Your task to perform on an android device: Open calendar and show me the fourth week of next month Image 0: 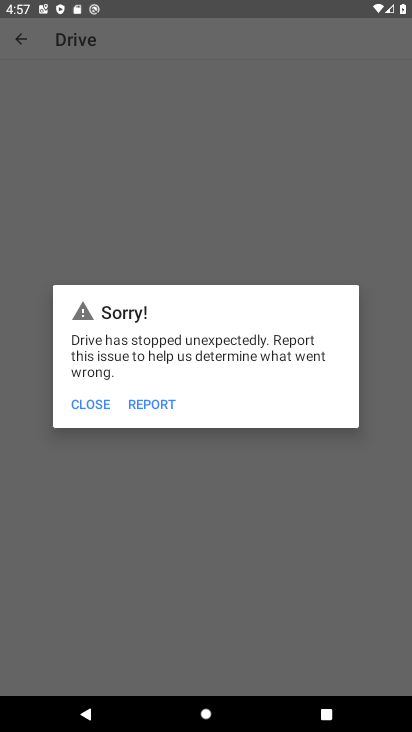
Step 0: press home button
Your task to perform on an android device: Open calendar and show me the fourth week of next month Image 1: 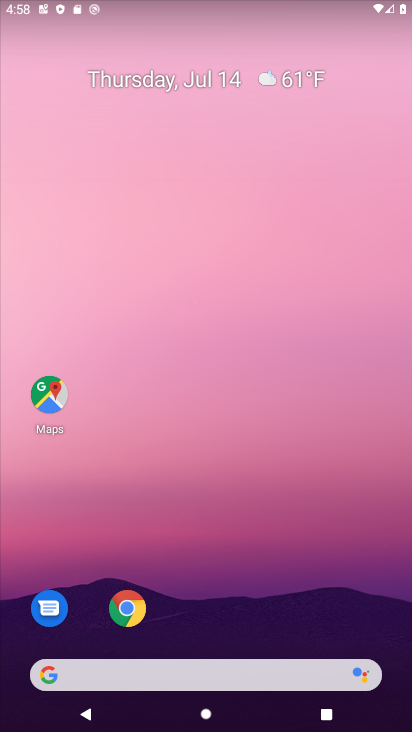
Step 1: drag from (233, 538) to (156, 22)
Your task to perform on an android device: Open calendar and show me the fourth week of next month Image 2: 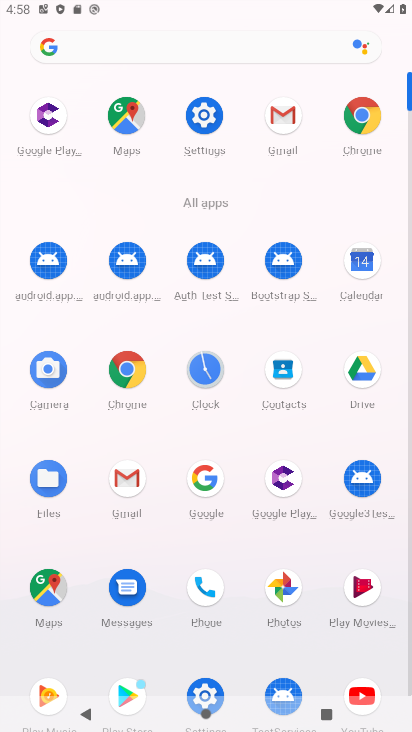
Step 2: click (370, 266)
Your task to perform on an android device: Open calendar and show me the fourth week of next month Image 3: 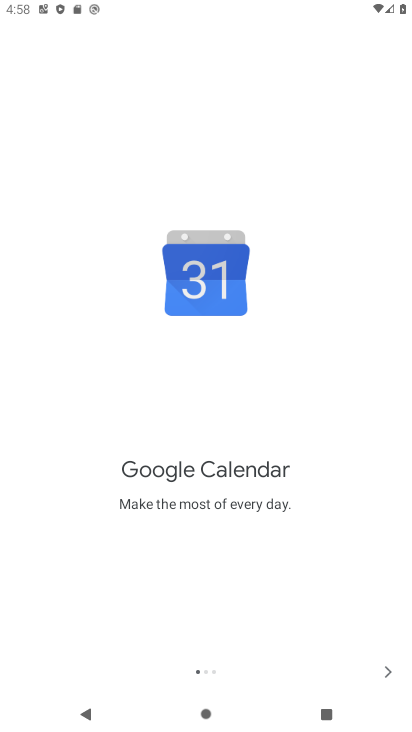
Step 3: click (393, 674)
Your task to perform on an android device: Open calendar and show me the fourth week of next month Image 4: 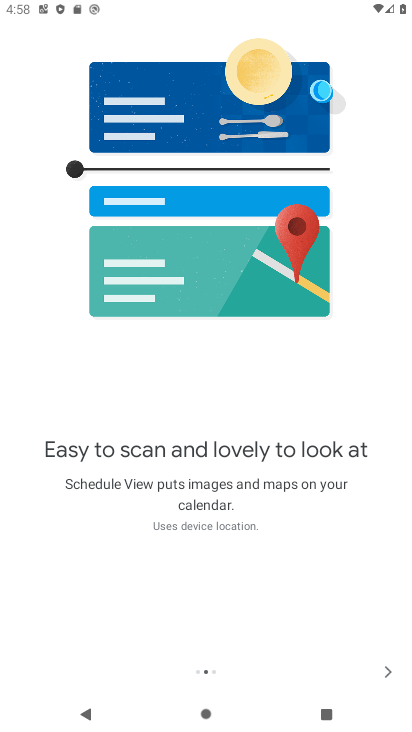
Step 4: click (393, 674)
Your task to perform on an android device: Open calendar and show me the fourth week of next month Image 5: 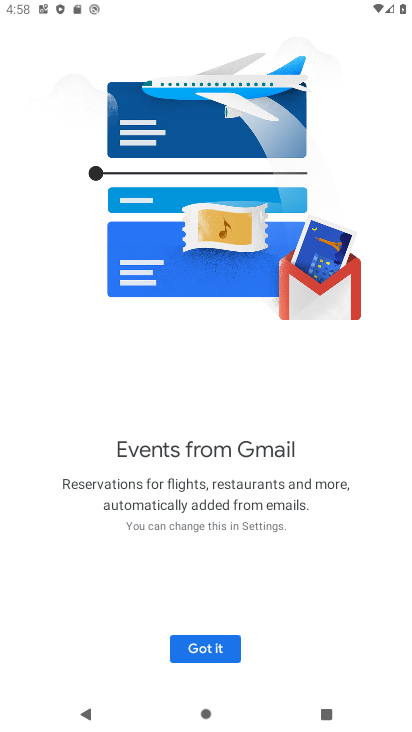
Step 5: click (206, 648)
Your task to perform on an android device: Open calendar and show me the fourth week of next month Image 6: 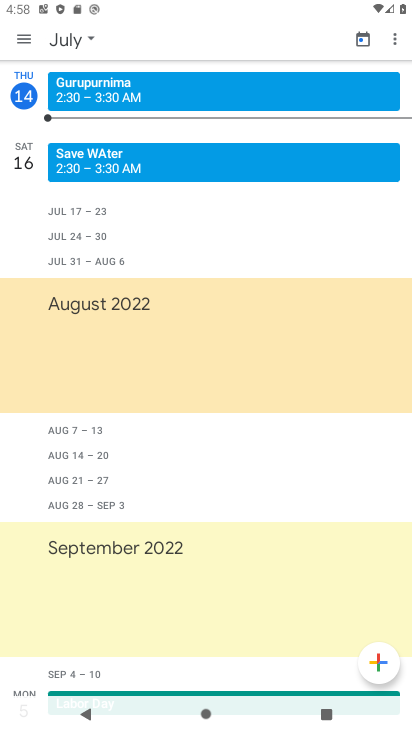
Step 6: click (77, 35)
Your task to perform on an android device: Open calendar and show me the fourth week of next month Image 7: 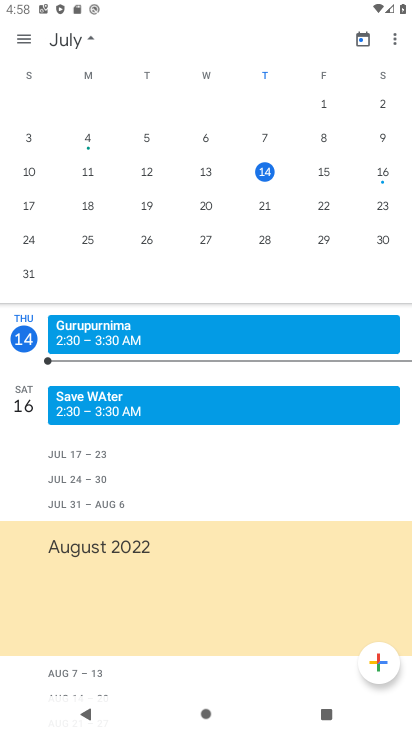
Step 7: drag from (392, 203) to (24, 201)
Your task to perform on an android device: Open calendar and show me the fourth week of next month Image 8: 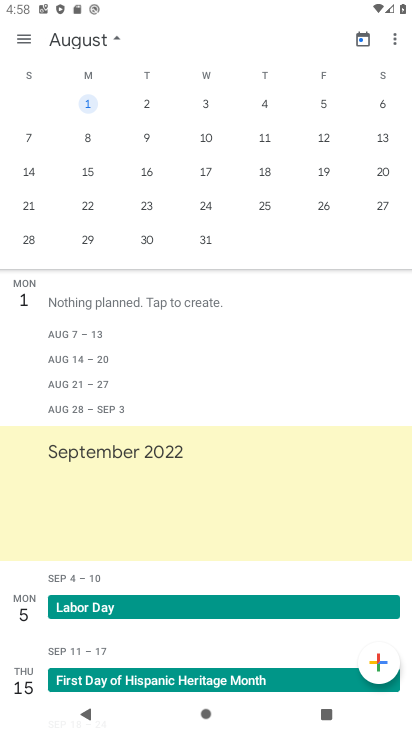
Step 8: click (268, 204)
Your task to perform on an android device: Open calendar and show me the fourth week of next month Image 9: 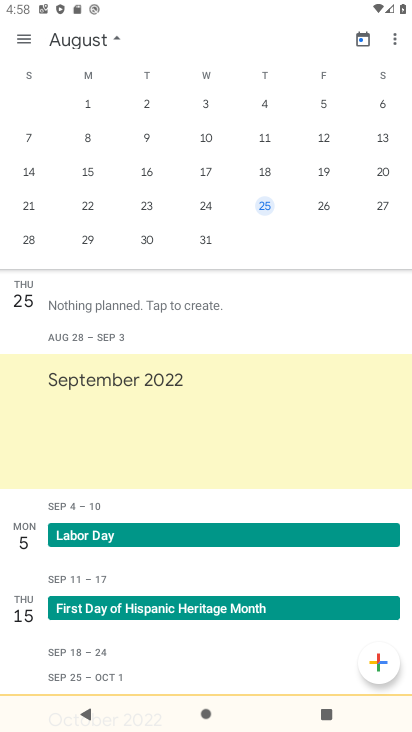
Step 9: click (28, 36)
Your task to perform on an android device: Open calendar and show me the fourth week of next month Image 10: 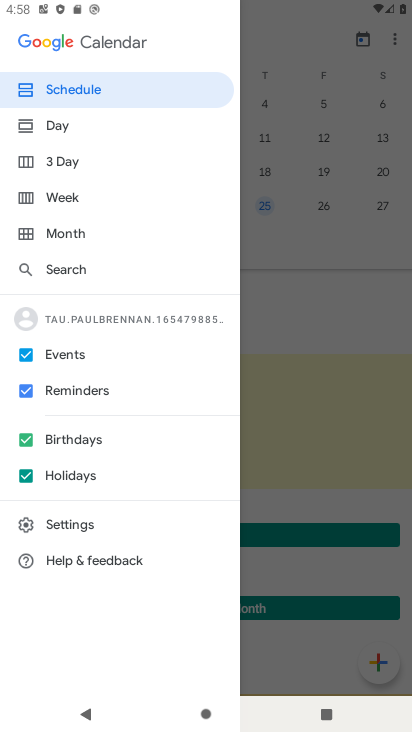
Step 10: click (66, 191)
Your task to perform on an android device: Open calendar and show me the fourth week of next month Image 11: 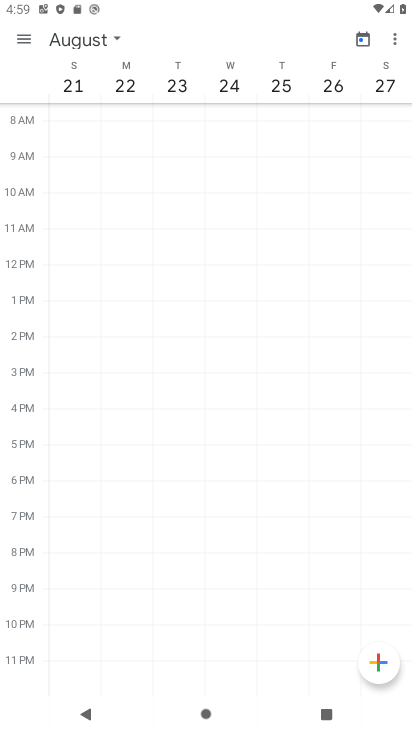
Step 11: task complete